Your task to perform on an android device: open app "Skype" Image 0: 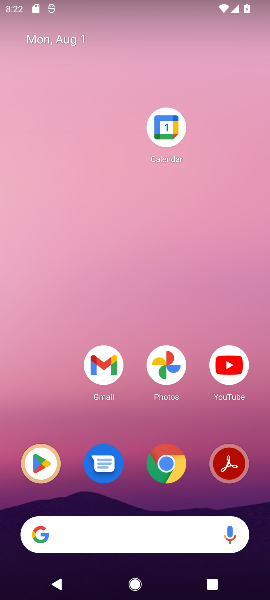
Step 0: drag from (89, 501) to (132, 101)
Your task to perform on an android device: open app "Skype" Image 1: 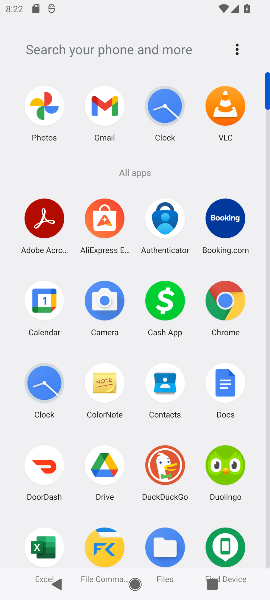
Step 1: click (267, 564)
Your task to perform on an android device: open app "Skype" Image 2: 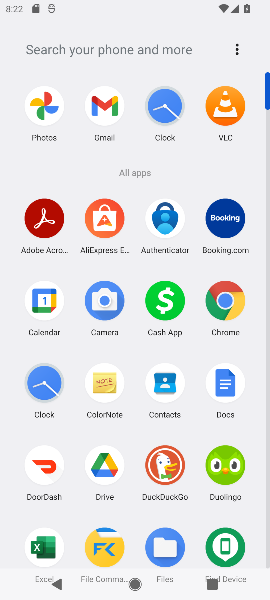
Step 2: click (267, 560)
Your task to perform on an android device: open app "Skype" Image 3: 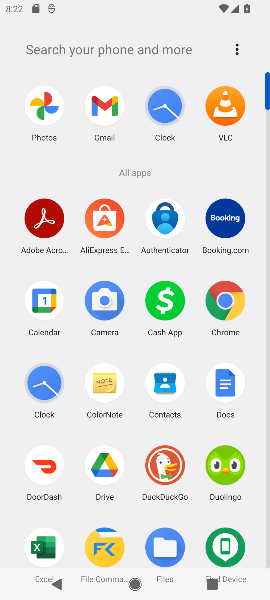
Step 3: click (267, 560)
Your task to perform on an android device: open app "Skype" Image 4: 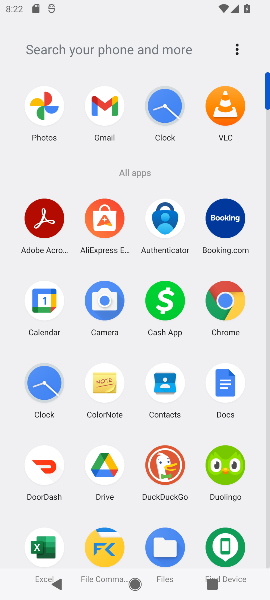
Step 4: drag from (268, 100) to (153, 570)
Your task to perform on an android device: open app "Skype" Image 5: 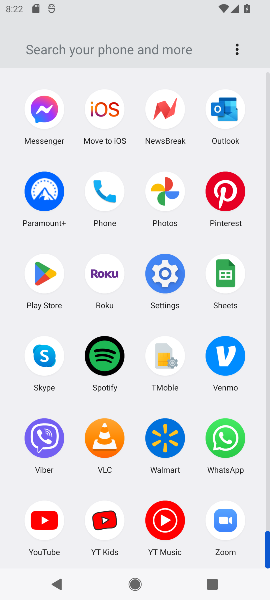
Step 5: click (31, 371)
Your task to perform on an android device: open app "Skype" Image 6: 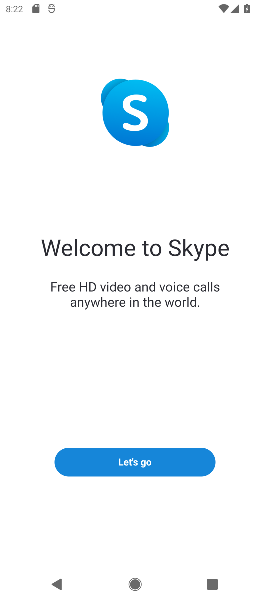
Step 6: task complete